Your task to perform on an android device: check storage Image 0: 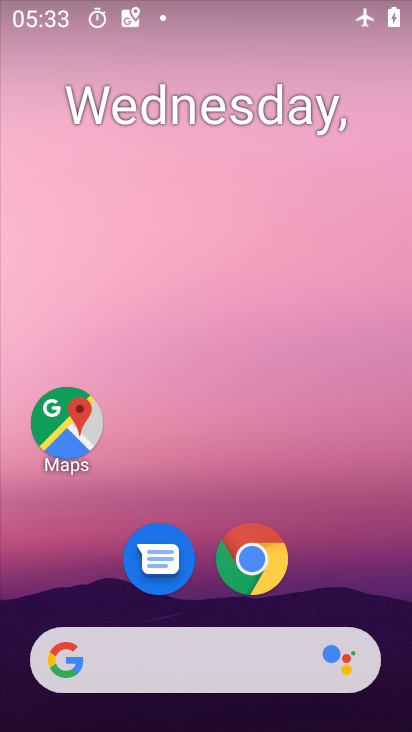
Step 0: drag from (343, 567) to (263, 124)
Your task to perform on an android device: check storage Image 1: 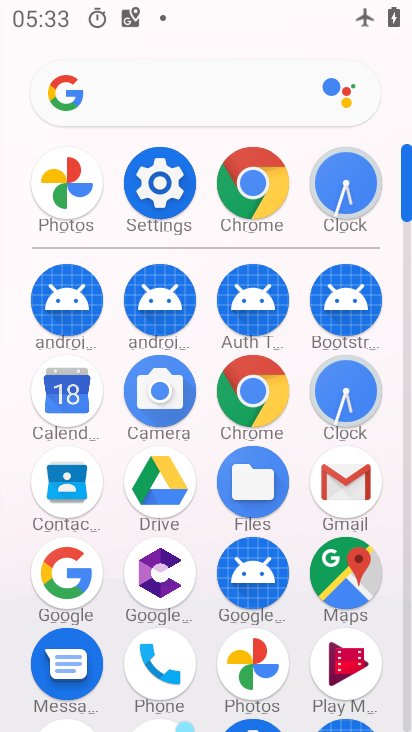
Step 1: click (171, 197)
Your task to perform on an android device: check storage Image 2: 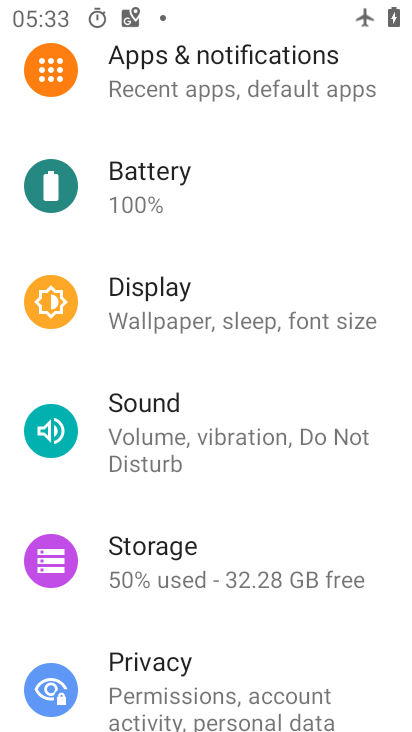
Step 2: click (223, 566)
Your task to perform on an android device: check storage Image 3: 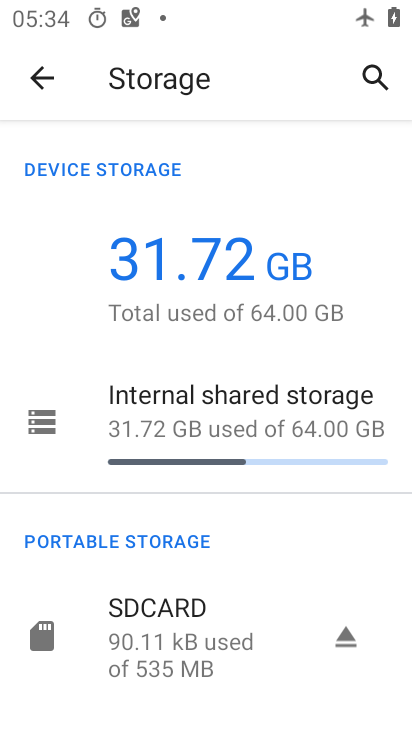
Step 3: task complete